Your task to perform on an android device: Is it going to rain tomorrow? Image 0: 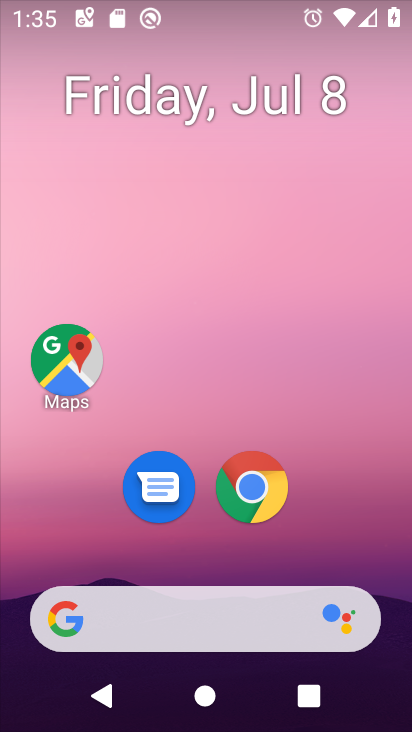
Step 0: click (279, 604)
Your task to perform on an android device: Is it going to rain tomorrow? Image 1: 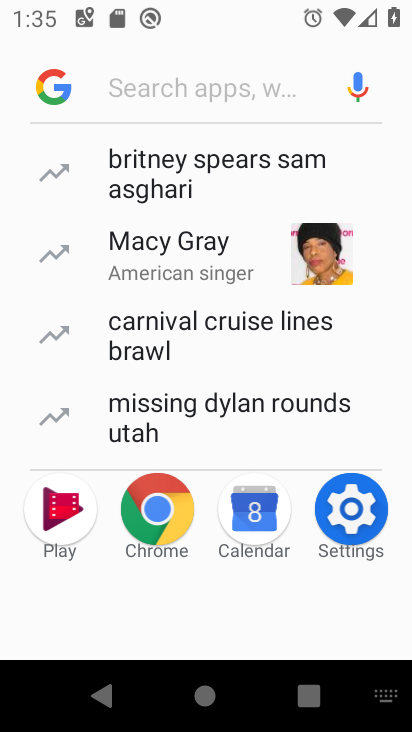
Step 1: type "is it going to rain tomorrow"
Your task to perform on an android device: Is it going to rain tomorrow? Image 2: 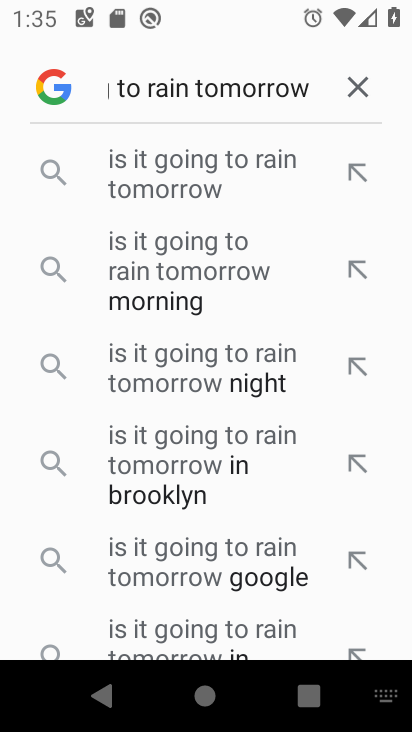
Step 2: click (209, 166)
Your task to perform on an android device: Is it going to rain tomorrow? Image 3: 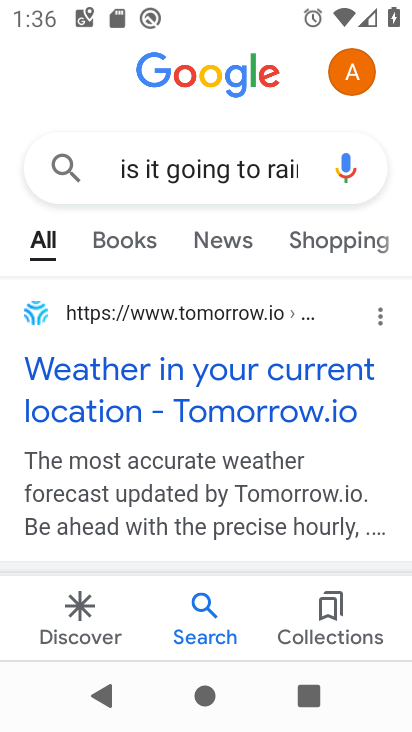
Step 3: task complete